Your task to perform on an android device: Open the Play Movies app and select the watchlist tab. Image 0: 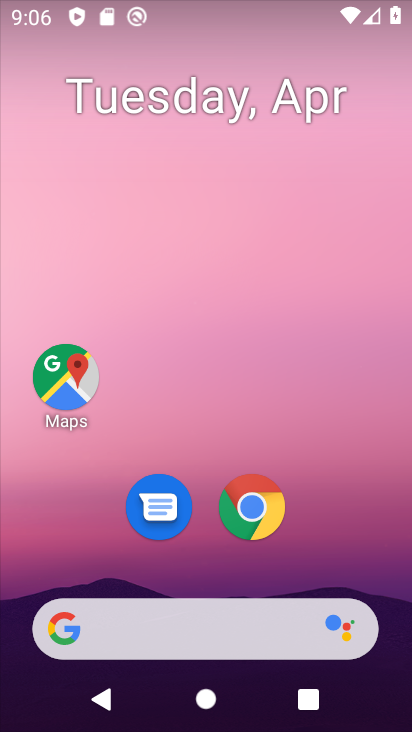
Step 0: drag from (310, 520) to (331, 64)
Your task to perform on an android device: Open the Play Movies app and select the watchlist tab. Image 1: 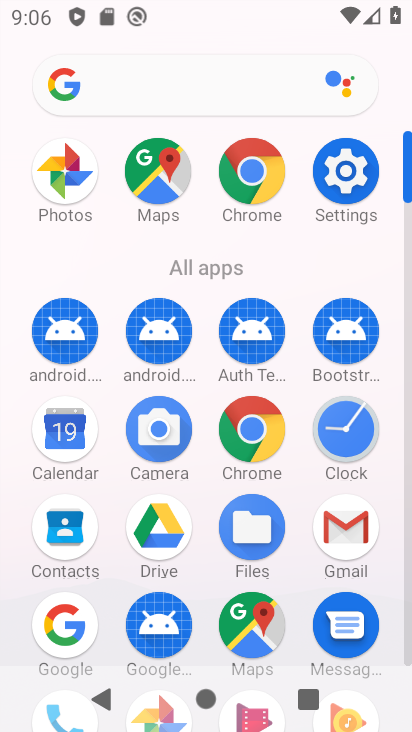
Step 1: drag from (288, 438) to (306, 221)
Your task to perform on an android device: Open the Play Movies app and select the watchlist tab. Image 2: 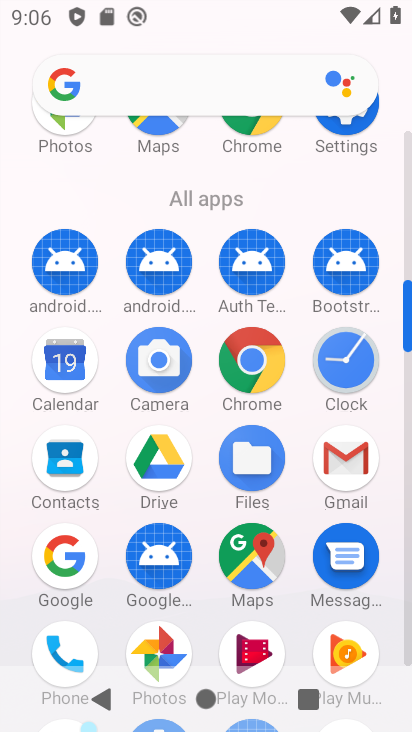
Step 2: click (248, 638)
Your task to perform on an android device: Open the Play Movies app and select the watchlist tab. Image 3: 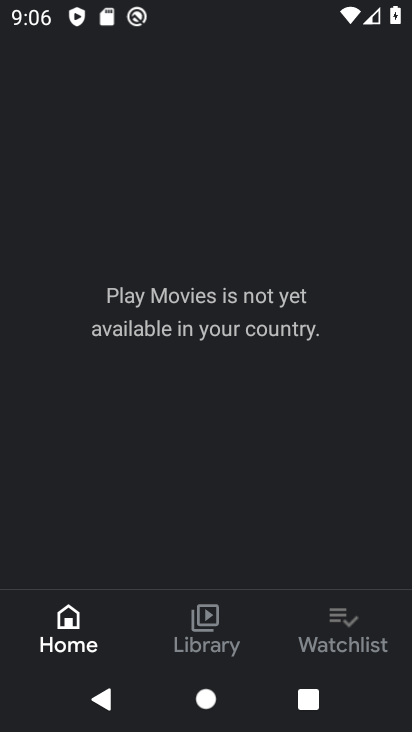
Step 3: click (329, 616)
Your task to perform on an android device: Open the Play Movies app and select the watchlist tab. Image 4: 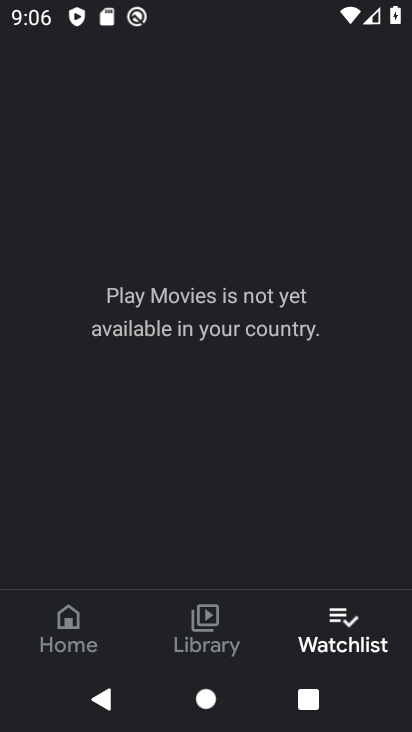
Step 4: task complete